Your task to perform on an android device: turn off data saver in the chrome app Image 0: 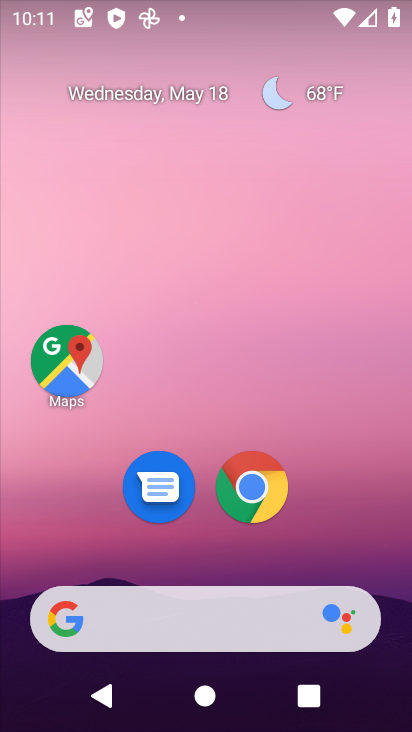
Step 0: drag from (361, 554) to (332, 58)
Your task to perform on an android device: turn off data saver in the chrome app Image 1: 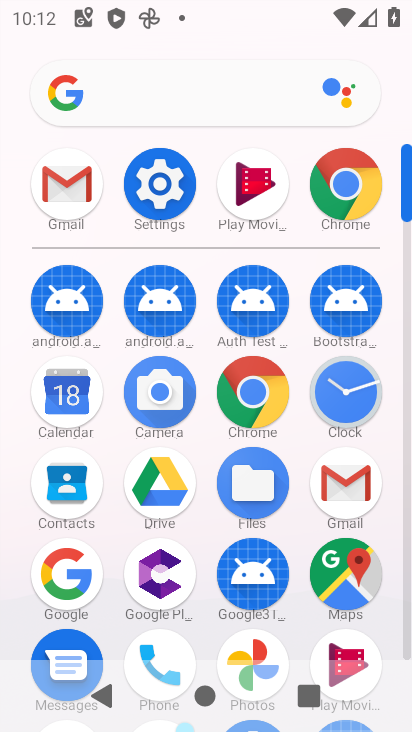
Step 1: click (169, 192)
Your task to perform on an android device: turn off data saver in the chrome app Image 2: 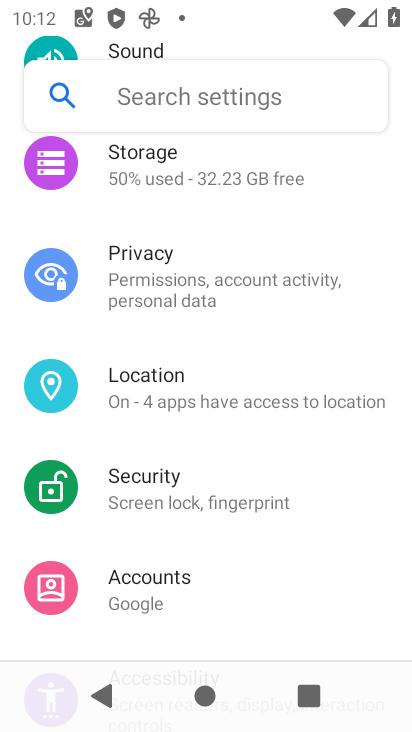
Step 2: drag from (274, 605) to (313, 209)
Your task to perform on an android device: turn off data saver in the chrome app Image 3: 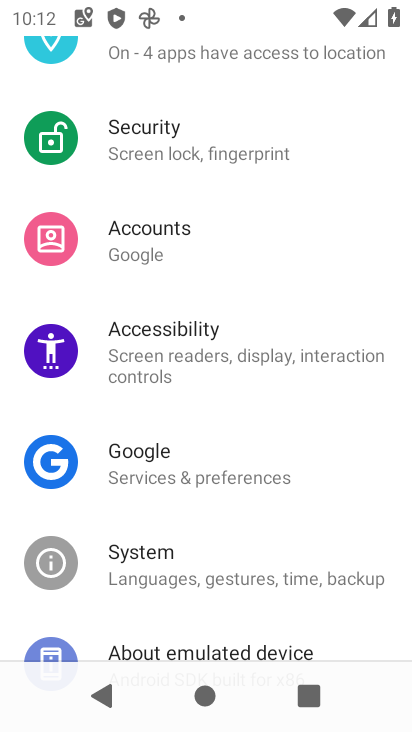
Step 3: drag from (284, 478) to (320, 166)
Your task to perform on an android device: turn off data saver in the chrome app Image 4: 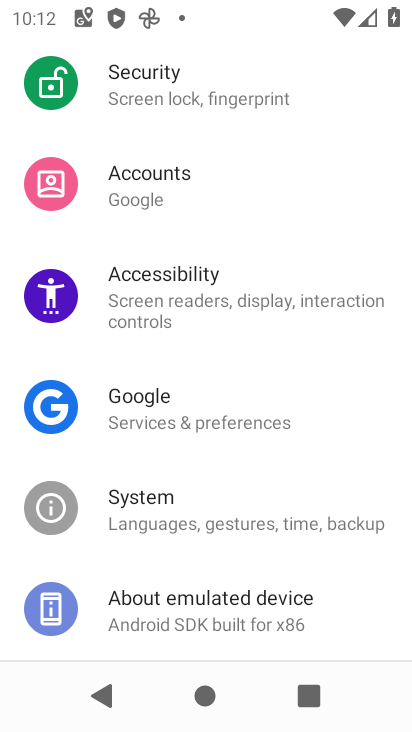
Step 4: drag from (221, 198) to (227, 481)
Your task to perform on an android device: turn off data saver in the chrome app Image 5: 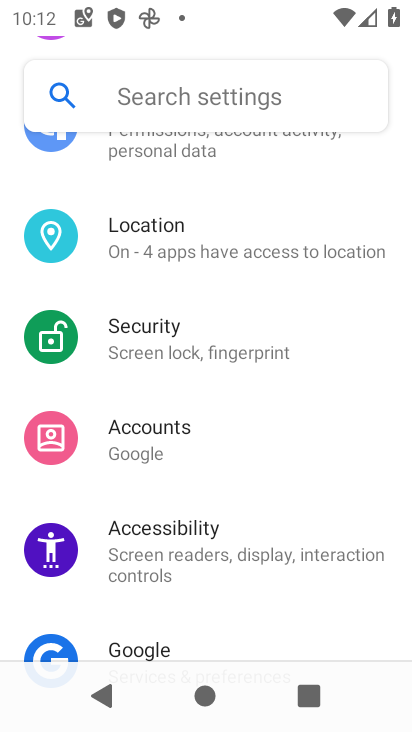
Step 5: press home button
Your task to perform on an android device: turn off data saver in the chrome app Image 6: 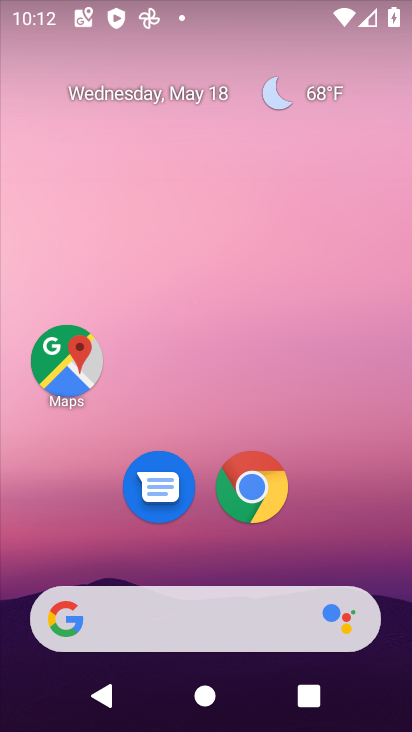
Step 6: drag from (348, 518) to (318, 119)
Your task to perform on an android device: turn off data saver in the chrome app Image 7: 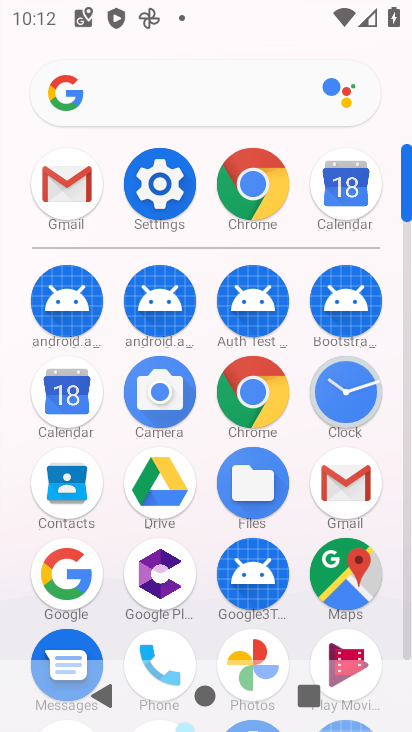
Step 7: click (262, 396)
Your task to perform on an android device: turn off data saver in the chrome app Image 8: 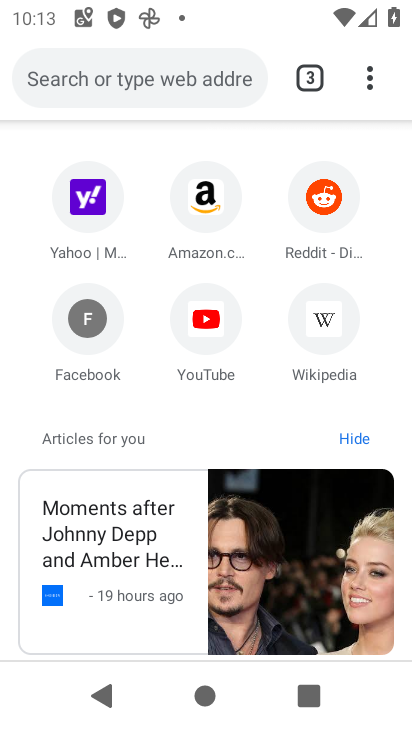
Step 8: drag from (380, 82) to (121, 556)
Your task to perform on an android device: turn off data saver in the chrome app Image 9: 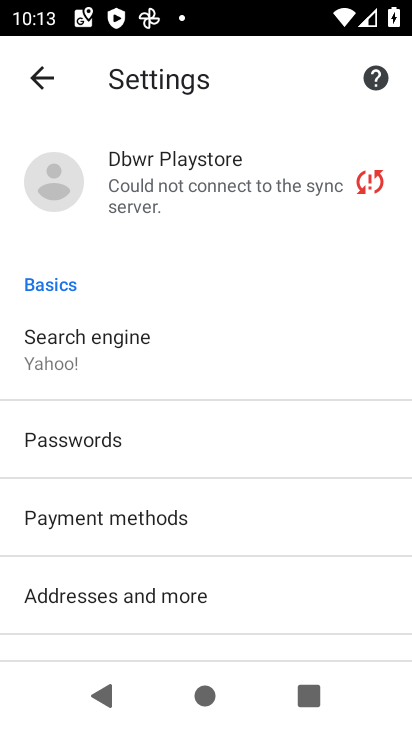
Step 9: drag from (295, 643) to (295, 306)
Your task to perform on an android device: turn off data saver in the chrome app Image 10: 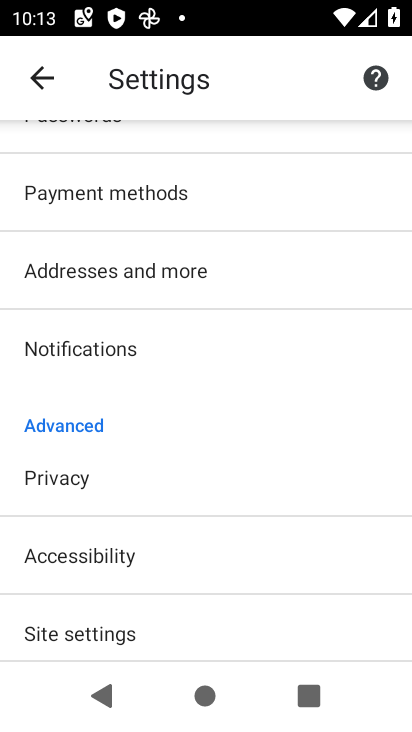
Step 10: drag from (311, 597) to (293, 225)
Your task to perform on an android device: turn off data saver in the chrome app Image 11: 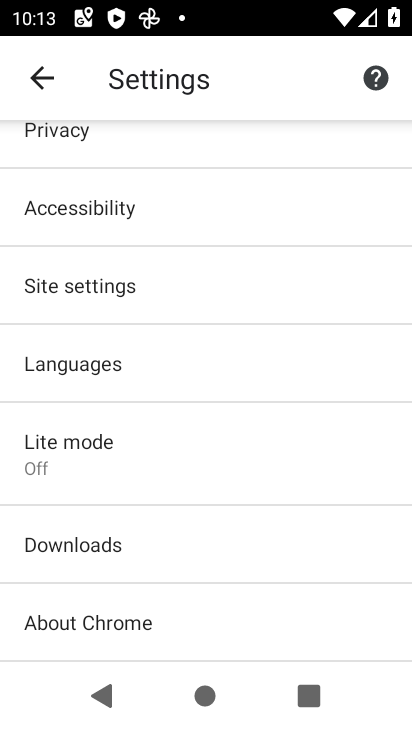
Step 11: click (117, 454)
Your task to perform on an android device: turn off data saver in the chrome app Image 12: 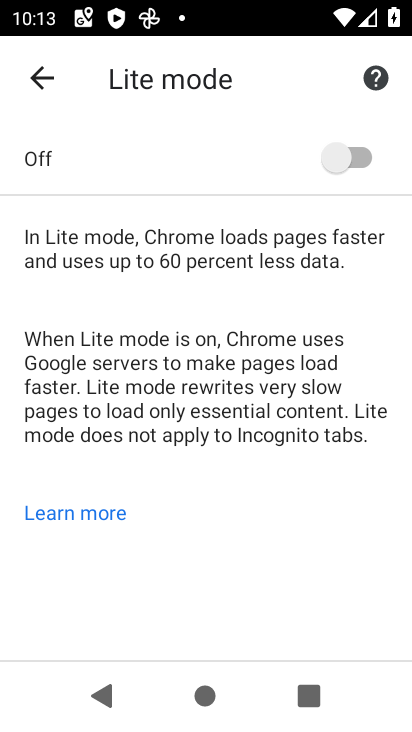
Step 12: task complete